Your task to perform on an android device: Open eBay Image 0: 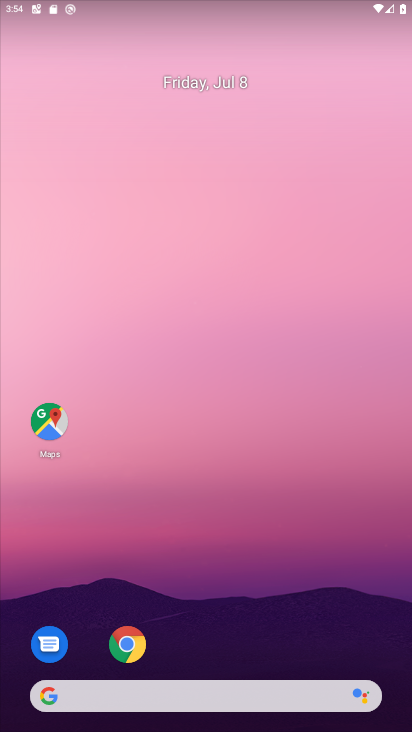
Step 0: click (130, 647)
Your task to perform on an android device: Open eBay Image 1: 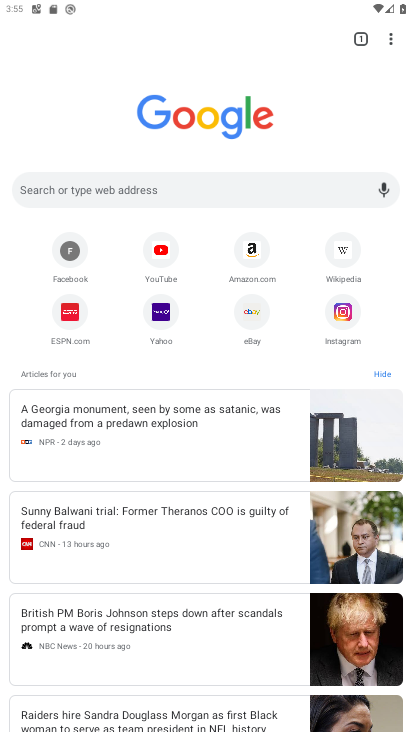
Step 1: click (143, 188)
Your task to perform on an android device: Open eBay Image 2: 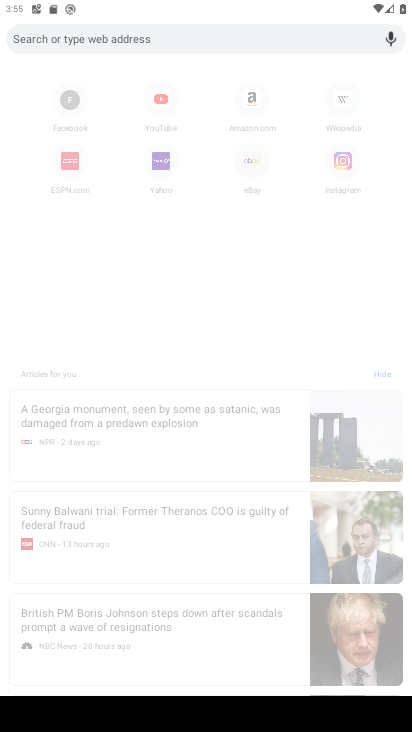
Step 2: type "eBay"
Your task to perform on an android device: Open eBay Image 3: 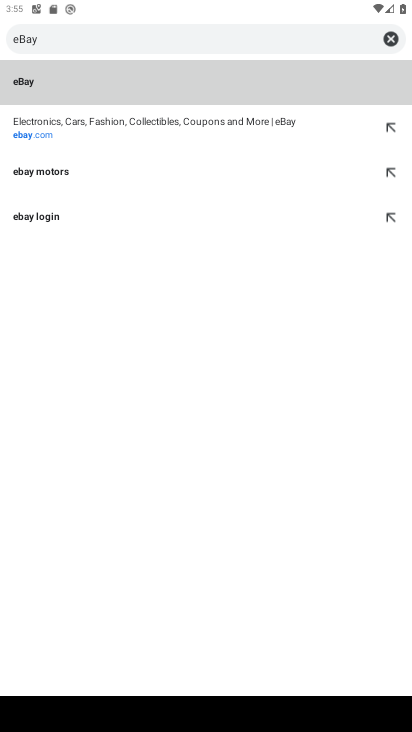
Step 3: click (34, 121)
Your task to perform on an android device: Open eBay Image 4: 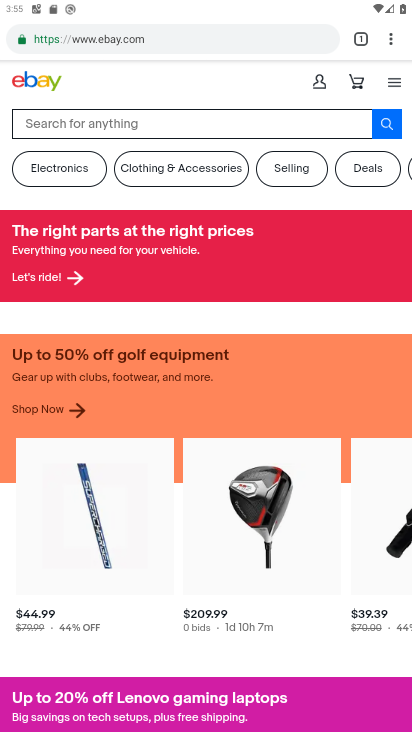
Step 4: task complete